Your task to perform on an android device: Open Yahoo.com Image 0: 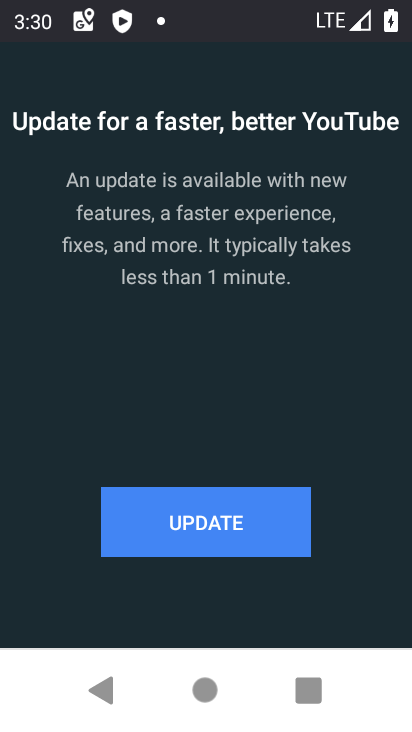
Step 0: press home button
Your task to perform on an android device: Open Yahoo.com Image 1: 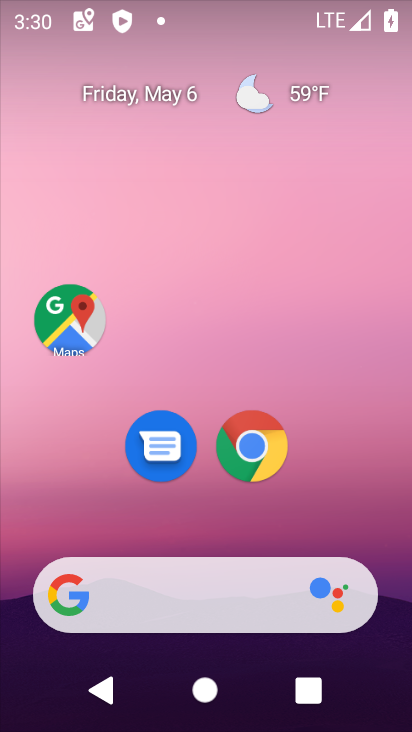
Step 1: click (252, 452)
Your task to perform on an android device: Open Yahoo.com Image 2: 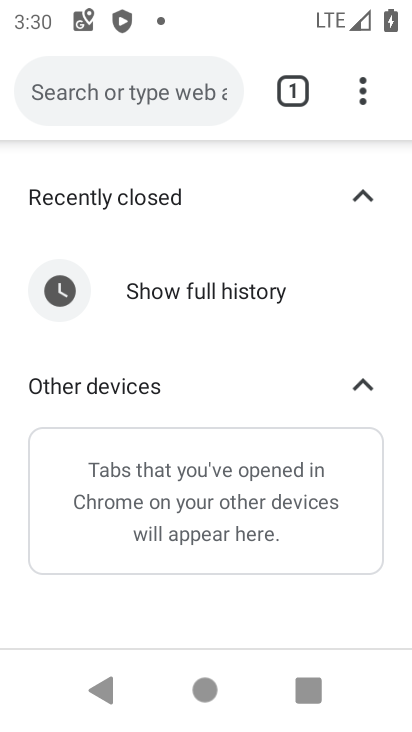
Step 2: click (154, 88)
Your task to perform on an android device: Open Yahoo.com Image 3: 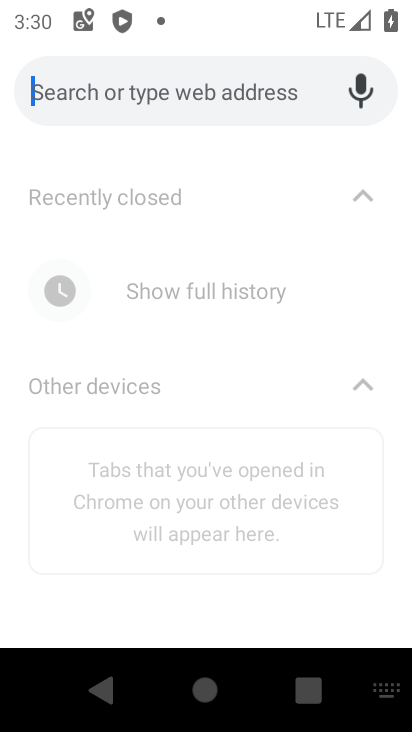
Step 3: type "yahoo.com"
Your task to perform on an android device: Open Yahoo.com Image 4: 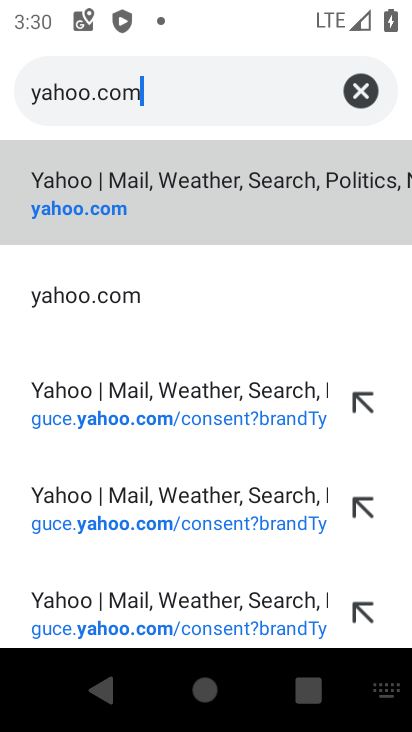
Step 4: click (98, 213)
Your task to perform on an android device: Open Yahoo.com Image 5: 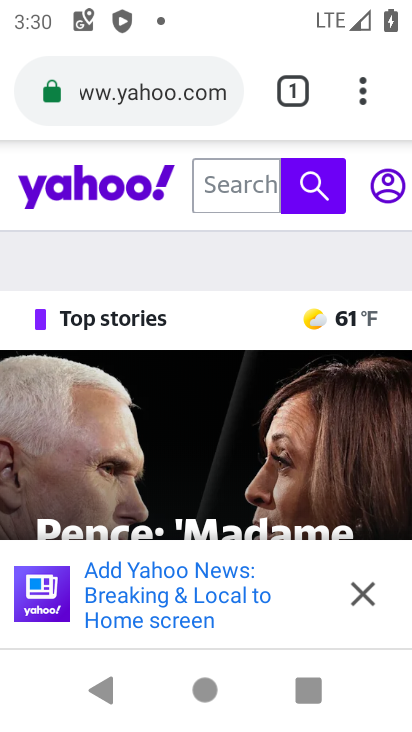
Step 5: task complete